Your task to perform on an android device: search for starred emails in the gmail app Image 0: 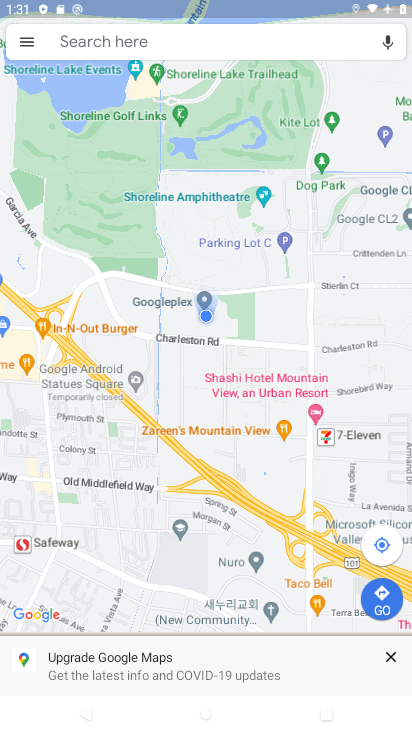
Step 0: press home button
Your task to perform on an android device: search for starred emails in the gmail app Image 1: 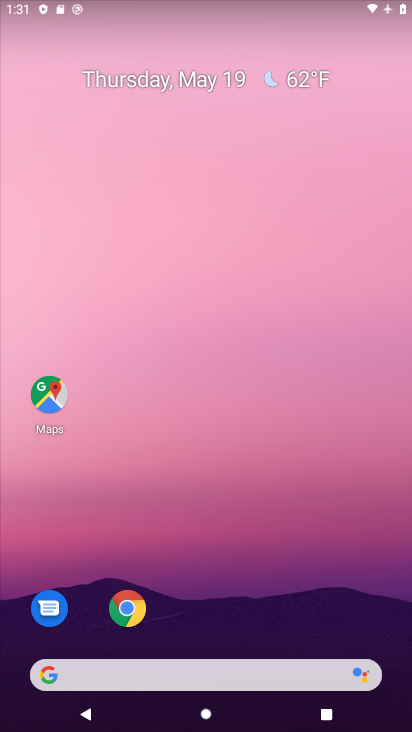
Step 1: drag from (249, 583) to (222, 141)
Your task to perform on an android device: search for starred emails in the gmail app Image 2: 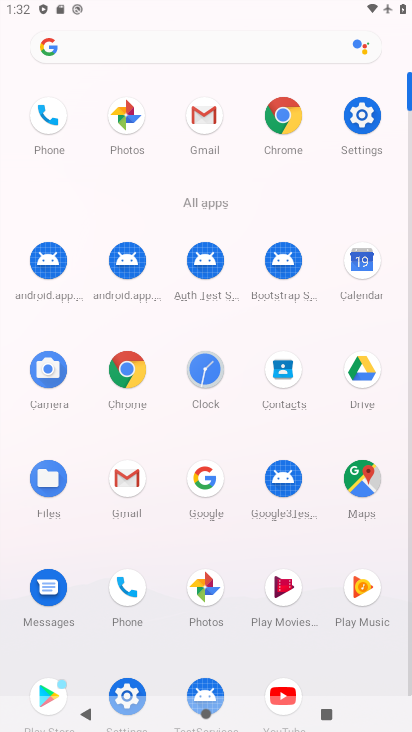
Step 2: click (108, 502)
Your task to perform on an android device: search for starred emails in the gmail app Image 3: 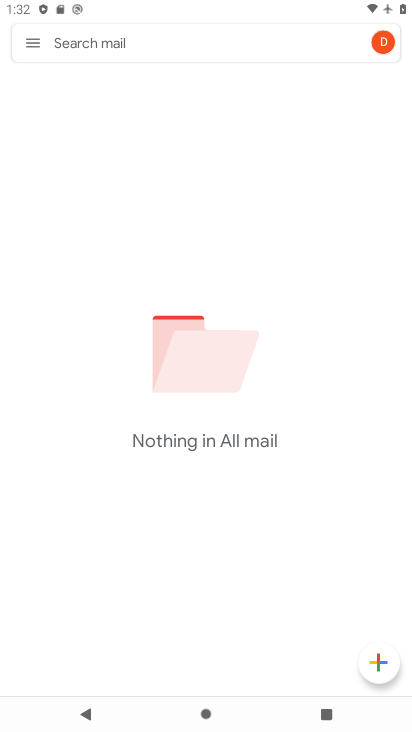
Step 3: click (37, 38)
Your task to perform on an android device: search for starred emails in the gmail app Image 4: 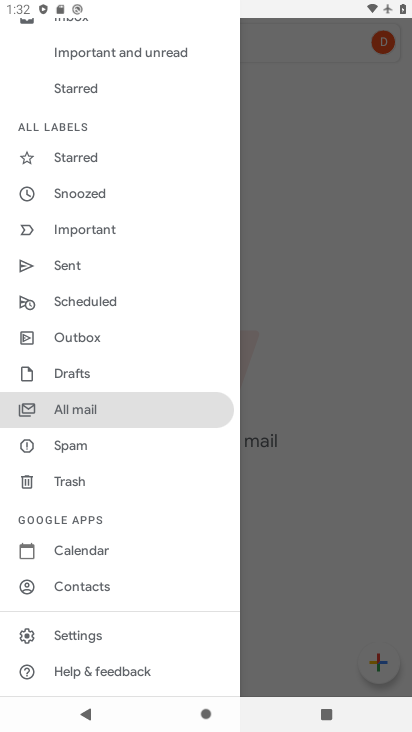
Step 4: click (49, 165)
Your task to perform on an android device: search for starred emails in the gmail app Image 5: 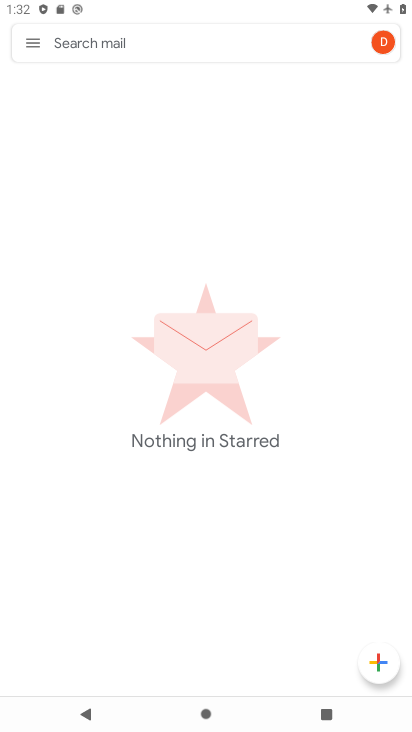
Step 5: task complete